Your task to perform on an android device: Open battery settings Image 0: 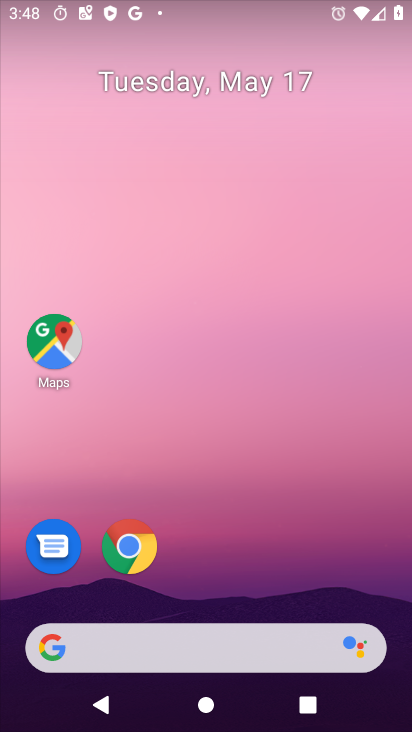
Step 0: drag from (372, 431) to (359, 351)
Your task to perform on an android device: Open battery settings Image 1: 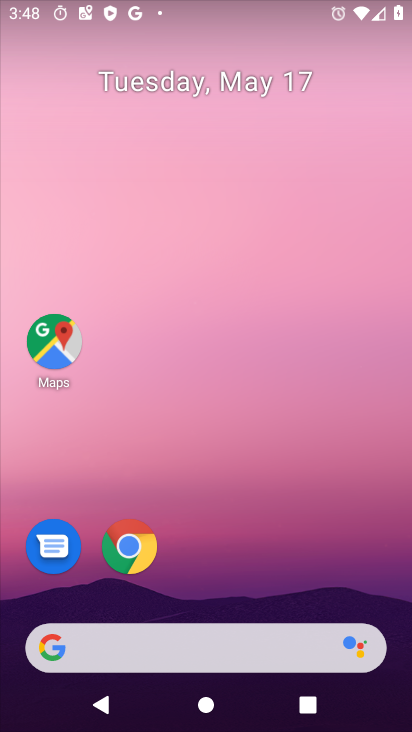
Step 1: drag from (392, 640) to (378, 288)
Your task to perform on an android device: Open battery settings Image 2: 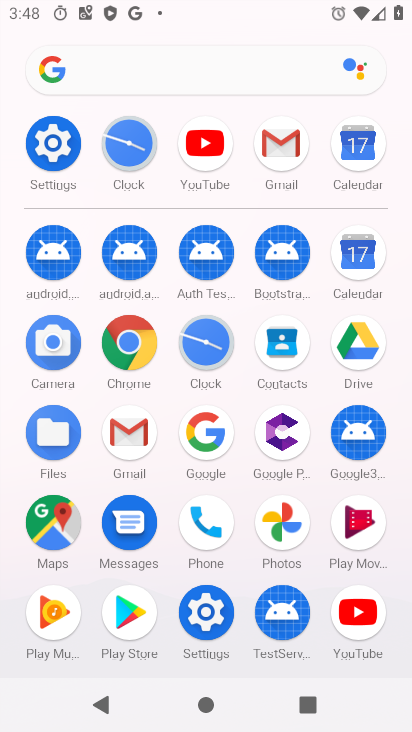
Step 2: click (30, 136)
Your task to perform on an android device: Open battery settings Image 3: 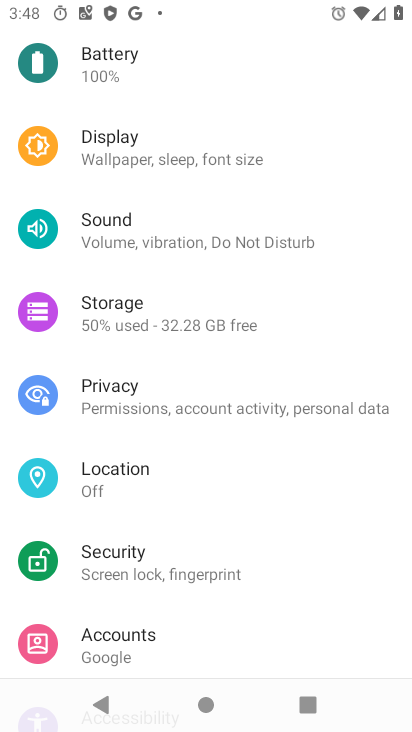
Step 3: drag from (315, 638) to (306, 395)
Your task to perform on an android device: Open battery settings Image 4: 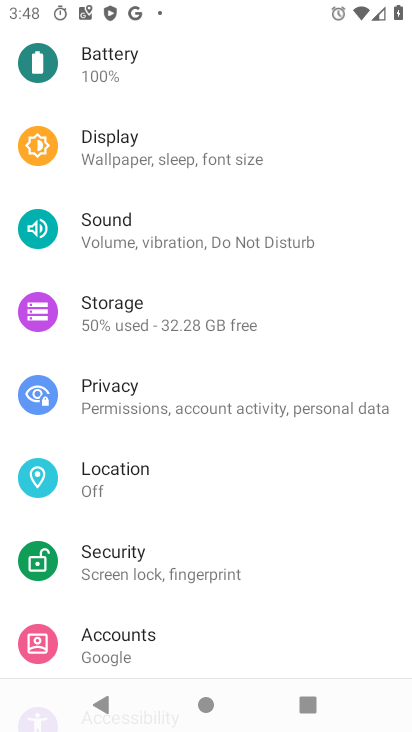
Step 4: click (88, 65)
Your task to perform on an android device: Open battery settings Image 5: 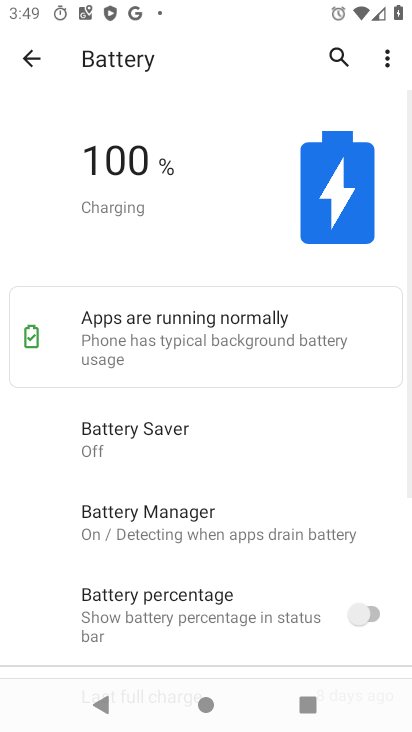
Step 5: task complete